Your task to perform on an android device: Show me productivity apps on the Play Store Image 0: 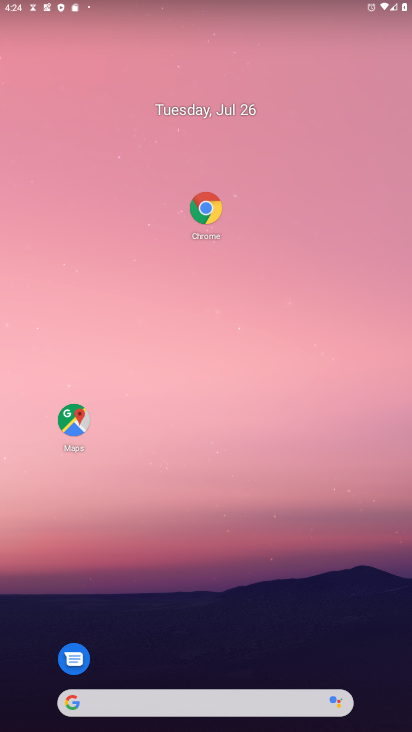
Step 0: press home button
Your task to perform on an android device: Show me productivity apps on the Play Store Image 1: 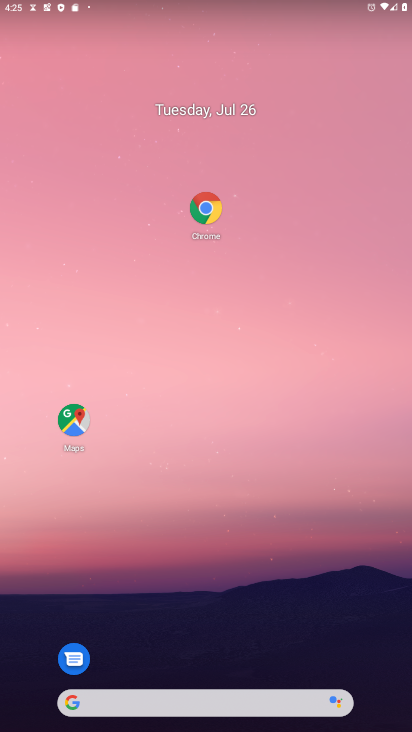
Step 1: drag from (189, 456) to (197, 66)
Your task to perform on an android device: Show me productivity apps on the Play Store Image 2: 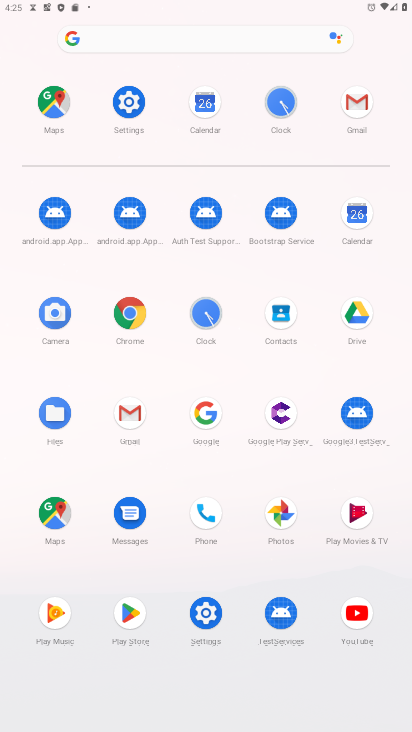
Step 2: click (131, 610)
Your task to perform on an android device: Show me productivity apps on the Play Store Image 3: 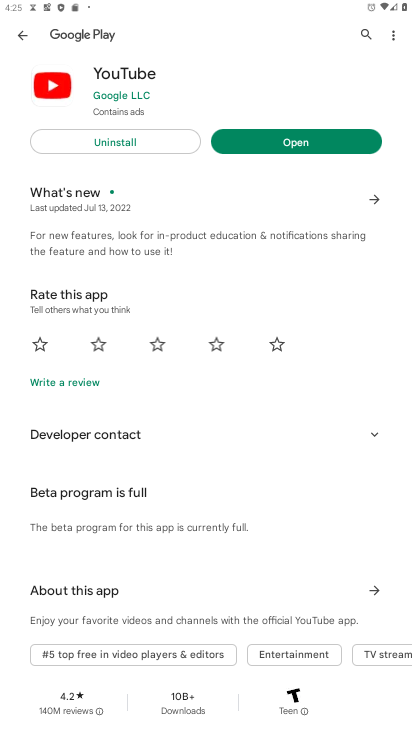
Step 3: click (19, 39)
Your task to perform on an android device: Show me productivity apps on the Play Store Image 4: 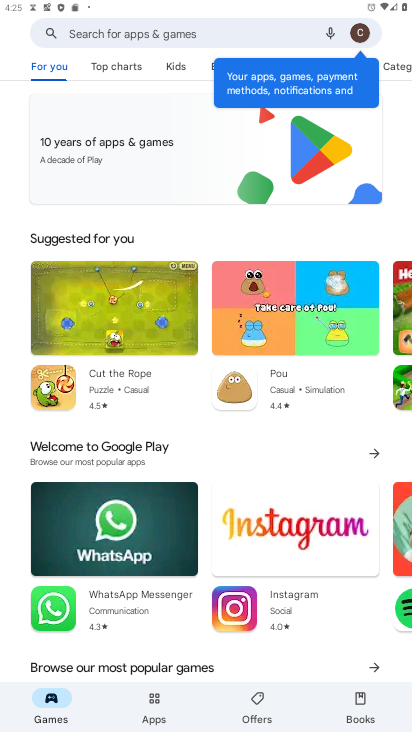
Step 4: click (152, 700)
Your task to perform on an android device: Show me productivity apps on the Play Store Image 5: 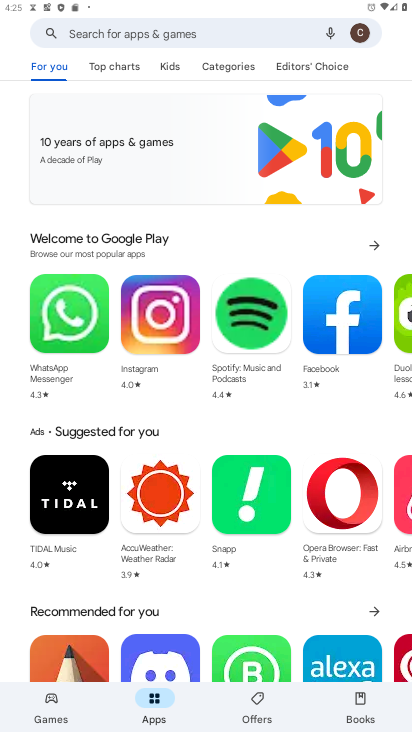
Step 5: click (230, 63)
Your task to perform on an android device: Show me productivity apps on the Play Store Image 6: 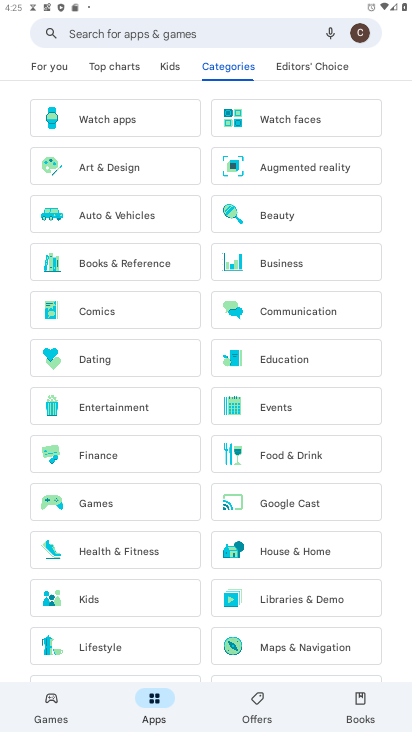
Step 6: drag from (152, 565) to (204, 295)
Your task to perform on an android device: Show me productivity apps on the Play Store Image 7: 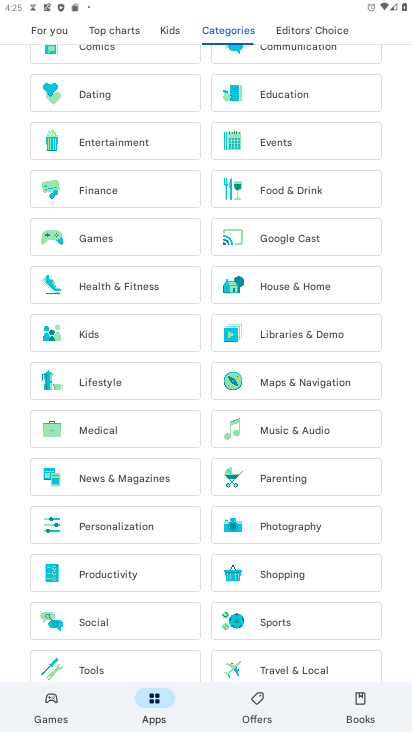
Step 7: click (145, 574)
Your task to perform on an android device: Show me productivity apps on the Play Store Image 8: 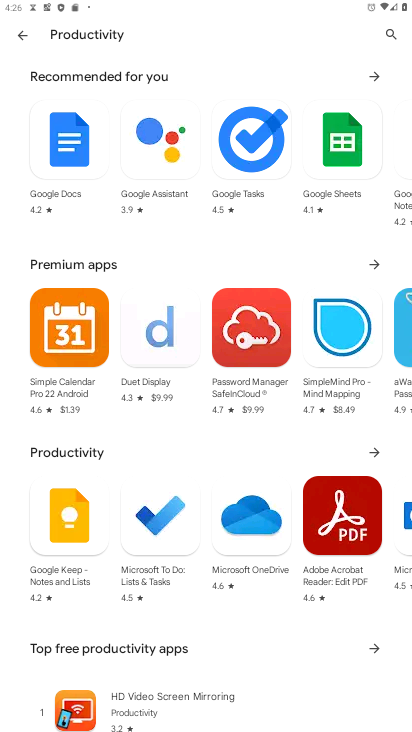
Step 8: task complete